Your task to perform on an android device: Go to accessibility settings Image 0: 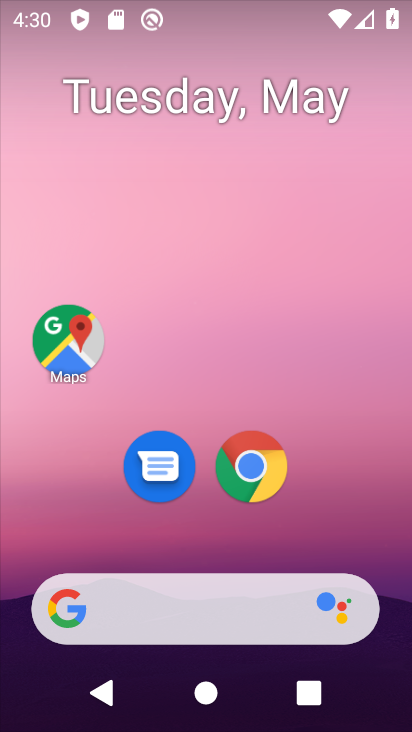
Step 0: drag from (330, 540) to (241, 73)
Your task to perform on an android device: Go to accessibility settings Image 1: 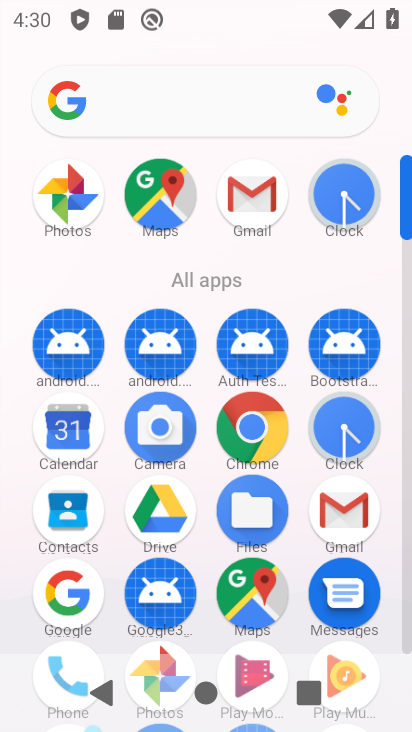
Step 1: click (411, 634)
Your task to perform on an android device: Go to accessibility settings Image 2: 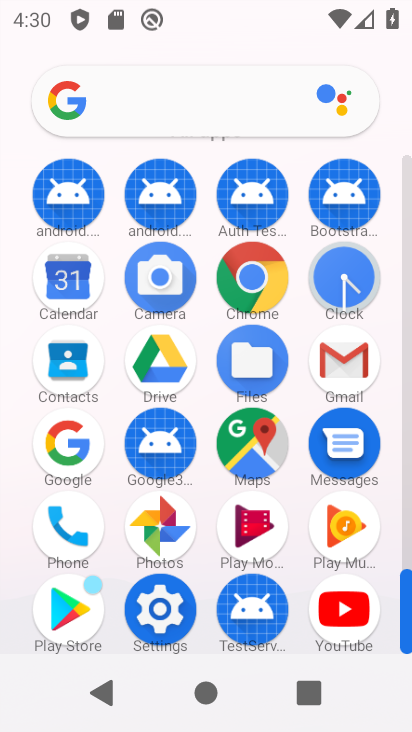
Step 2: click (180, 601)
Your task to perform on an android device: Go to accessibility settings Image 3: 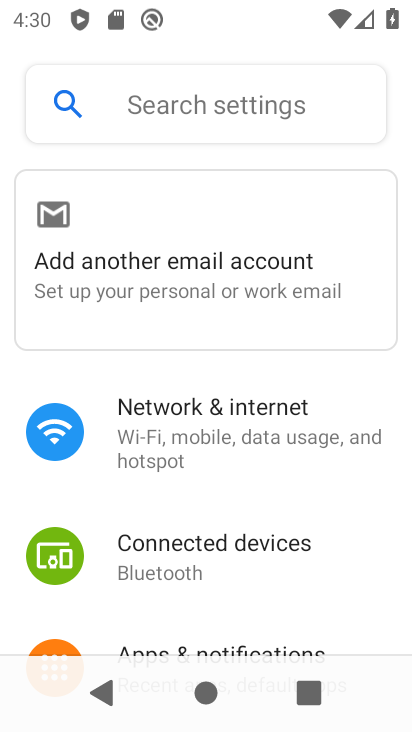
Step 3: drag from (234, 597) to (216, 180)
Your task to perform on an android device: Go to accessibility settings Image 4: 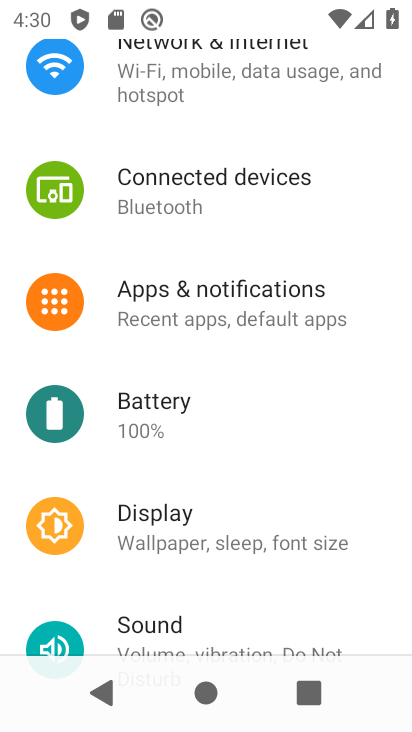
Step 4: drag from (276, 570) to (281, 194)
Your task to perform on an android device: Go to accessibility settings Image 5: 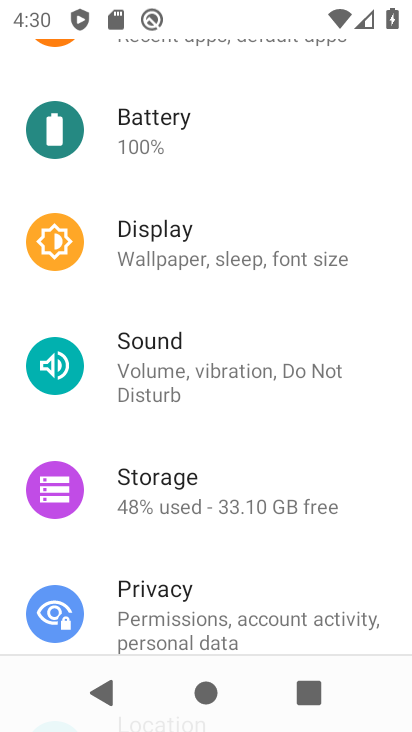
Step 5: drag from (307, 550) to (282, 142)
Your task to perform on an android device: Go to accessibility settings Image 6: 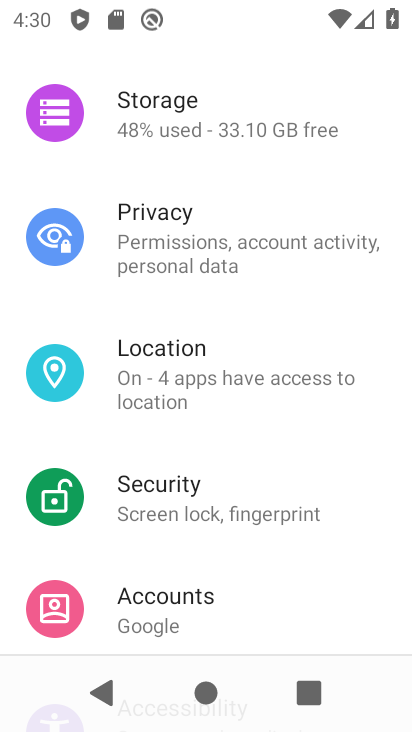
Step 6: drag from (285, 570) to (249, 107)
Your task to perform on an android device: Go to accessibility settings Image 7: 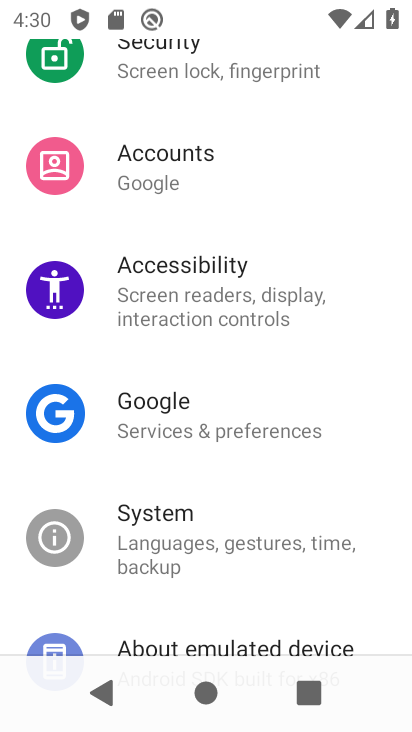
Step 7: click (261, 312)
Your task to perform on an android device: Go to accessibility settings Image 8: 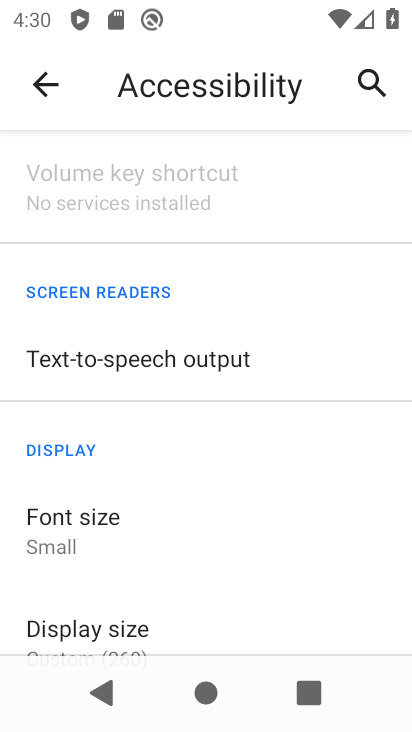
Step 8: task complete